Your task to perform on an android device: Go to display settings Image 0: 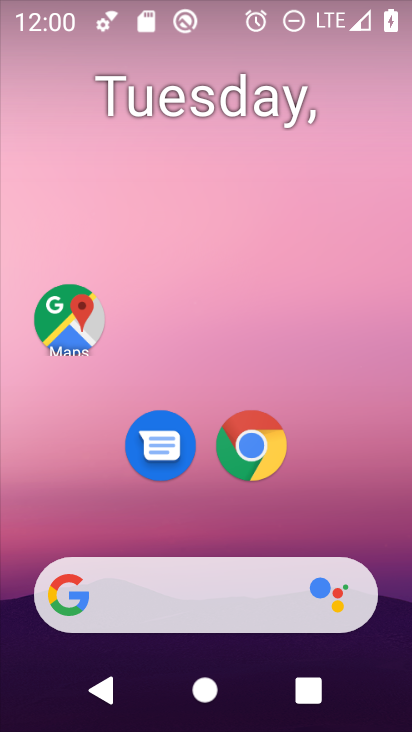
Step 0: drag from (330, 501) to (241, 40)
Your task to perform on an android device: Go to display settings Image 1: 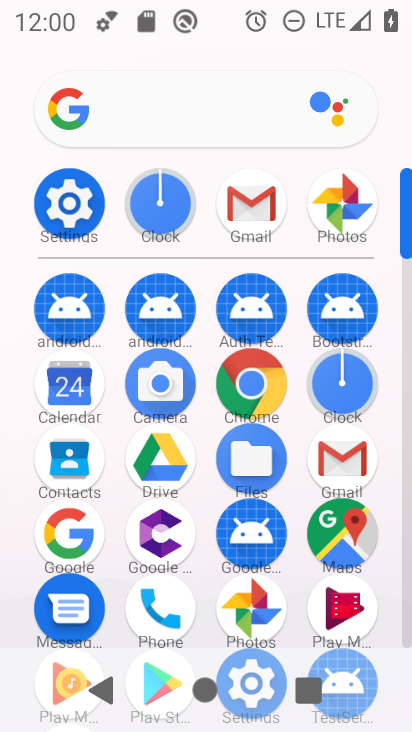
Step 1: click (66, 203)
Your task to perform on an android device: Go to display settings Image 2: 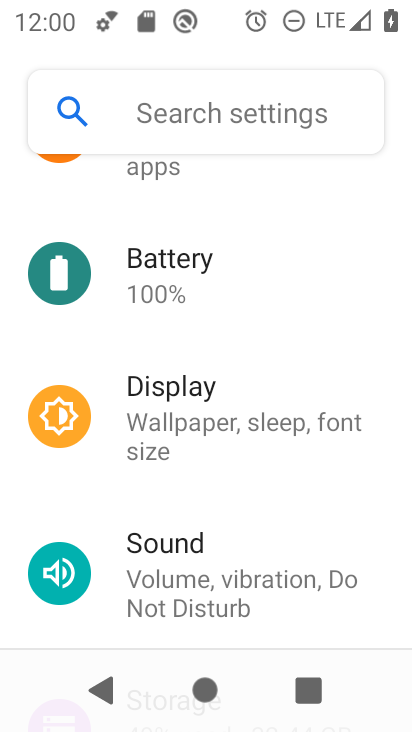
Step 2: click (164, 384)
Your task to perform on an android device: Go to display settings Image 3: 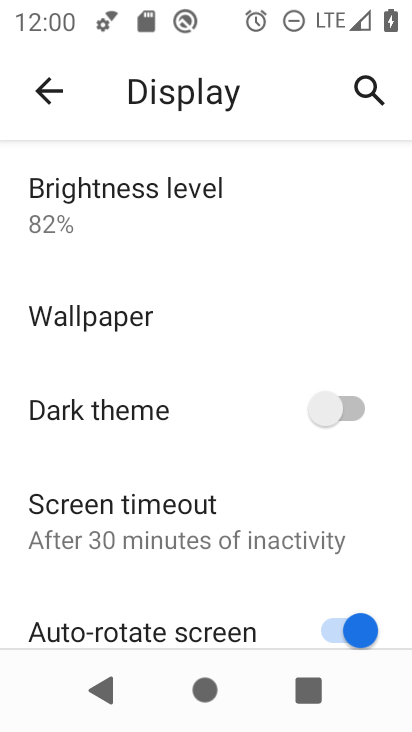
Step 3: task complete